Your task to perform on an android device: Go to sound settings Image 0: 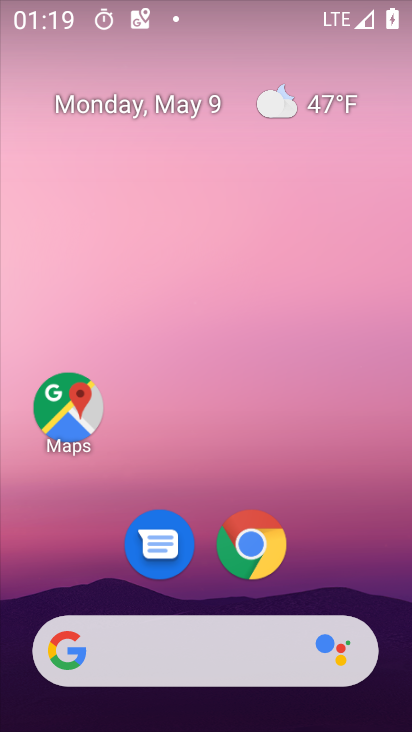
Step 0: drag from (277, 602) to (284, 0)
Your task to perform on an android device: Go to sound settings Image 1: 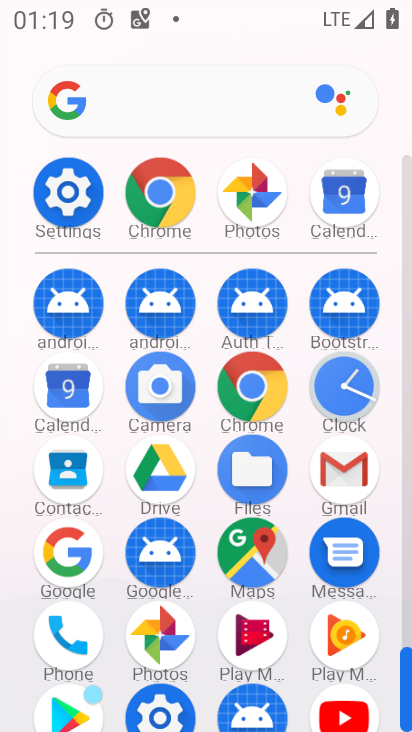
Step 1: click (82, 212)
Your task to perform on an android device: Go to sound settings Image 2: 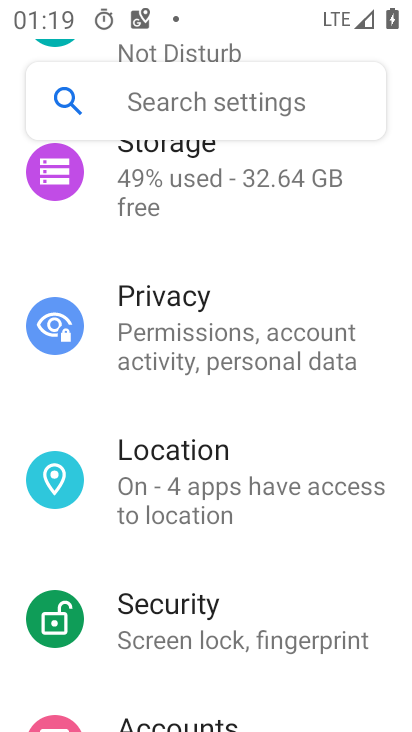
Step 2: drag from (269, 661) to (273, 711)
Your task to perform on an android device: Go to sound settings Image 3: 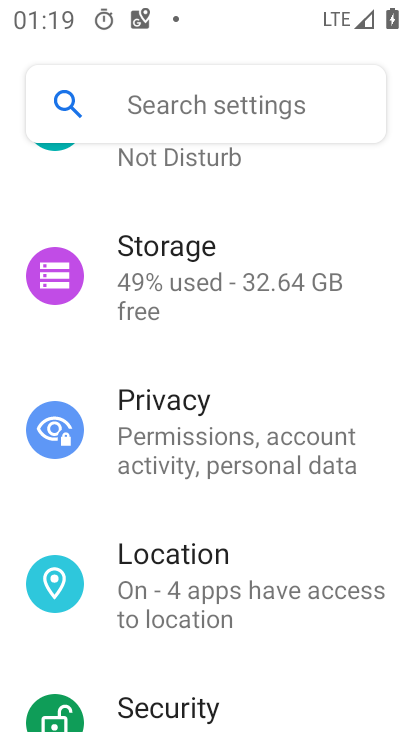
Step 3: drag from (229, 279) to (206, 646)
Your task to perform on an android device: Go to sound settings Image 4: 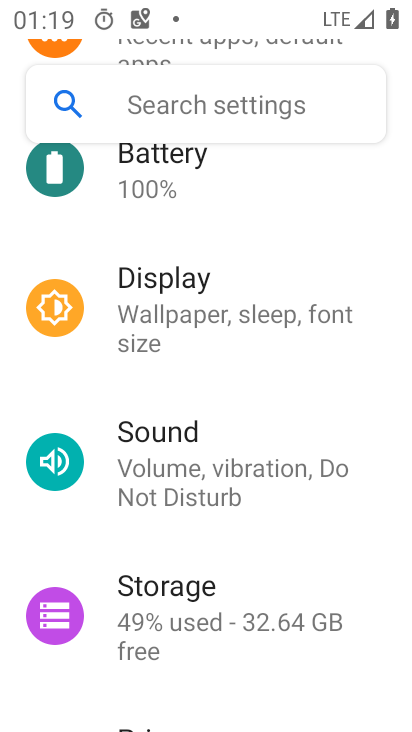
Step 4: click (203, 486)
Your task to perform on an android device: Go to sound settings Image 5: 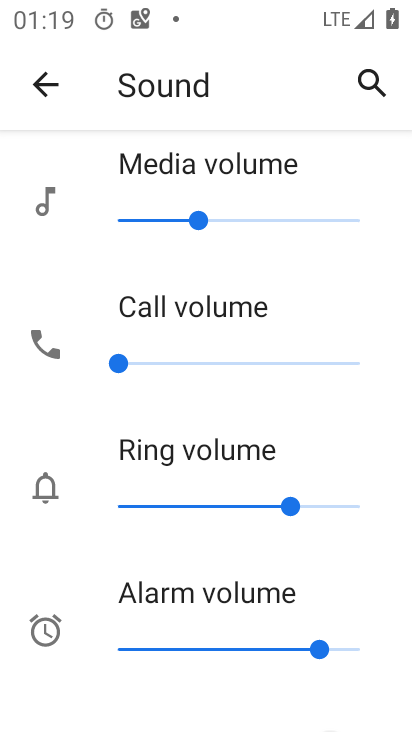
Step 5: task complete